Your task to perform on an android device: change the clock style Image 0: 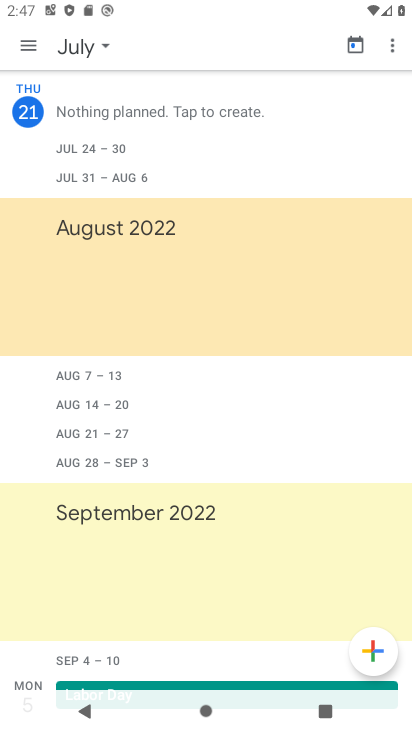
Step 0: press home button
Your task to perform on an android device: change the clock style Image 1: 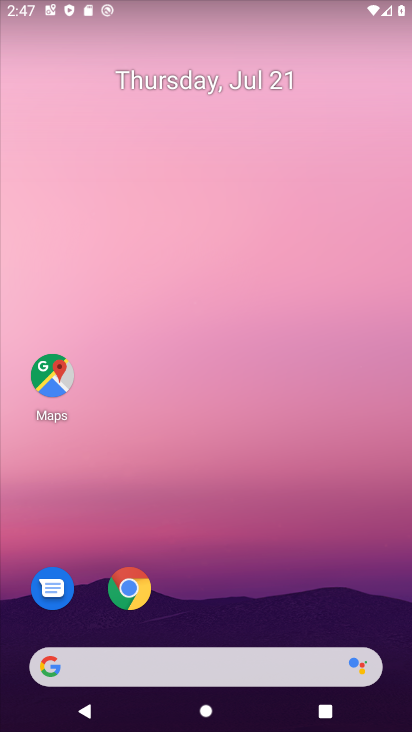
Step 1: drag from (259, 565) to (234, 213)
Your task to perform on an android device: change the clock style Image 2: 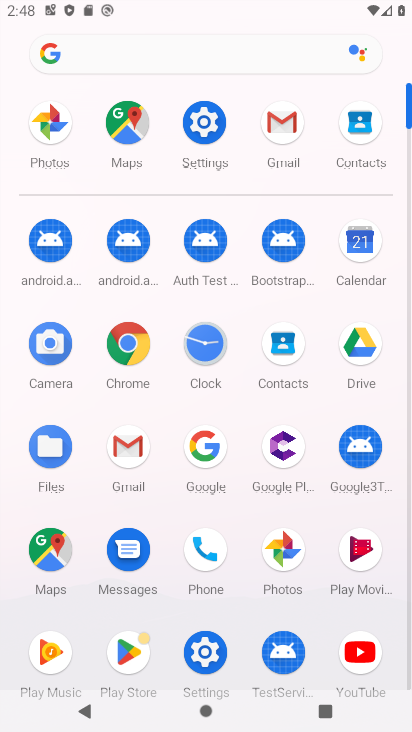
Step 2: click (208, 349)
Your task to perform on an android device: change the clock style Image 3: 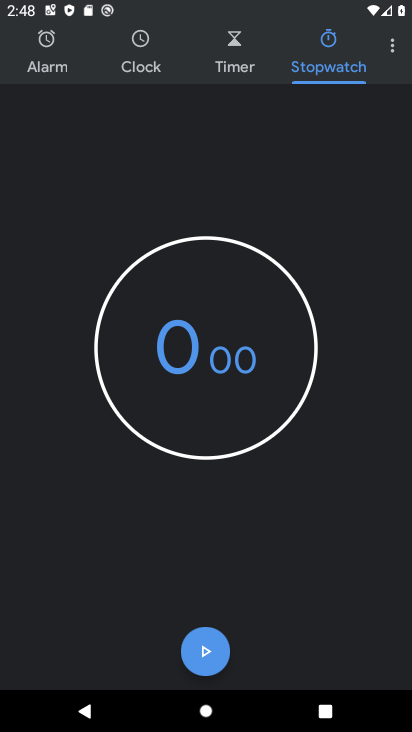
Step 3: click (389, 55)
Your task to perform on an android device: change the clock style Image 4: 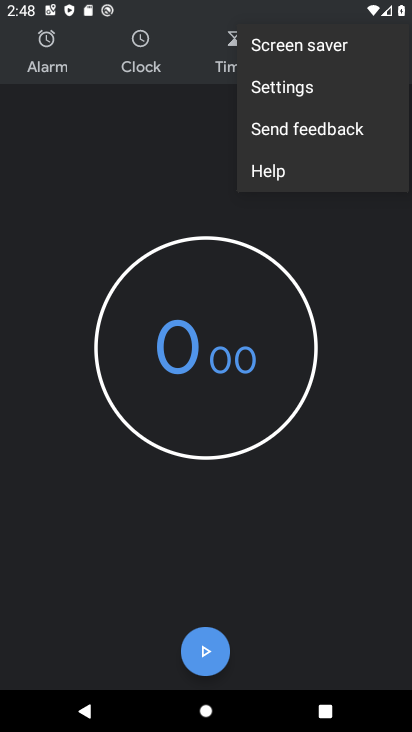
Step 4: click (285, 93)
Your task to perform on an android device: change the clock style Image 5: 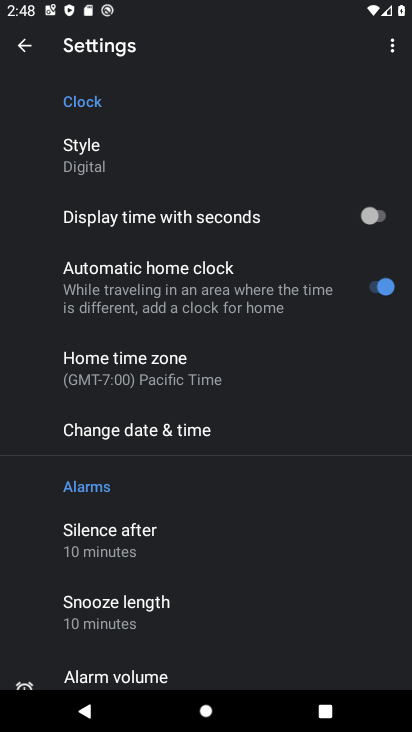
Step 5: click (76, 144)
Your task to perform on an android device: change the clock style Image 6: 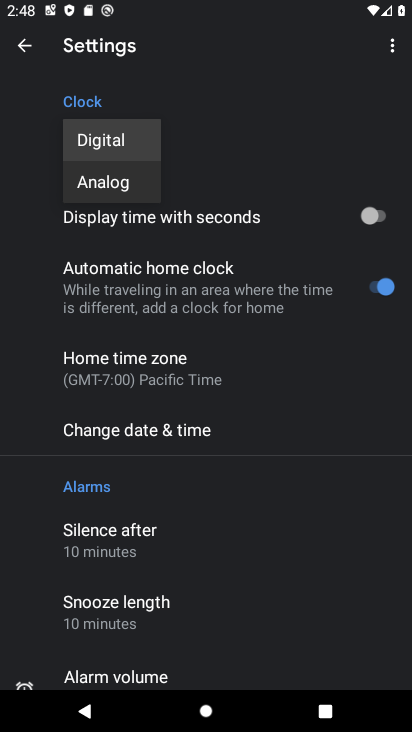
Step 6: click (88, 182)
Your task to perform on an android device: change the clock style Image 7: 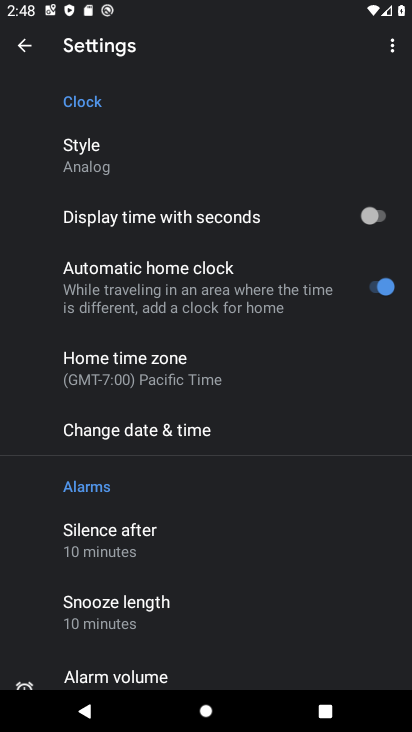
Step 7: task complete